Your task to perform on an android device: add a label to a message in the gmail app Image 0: 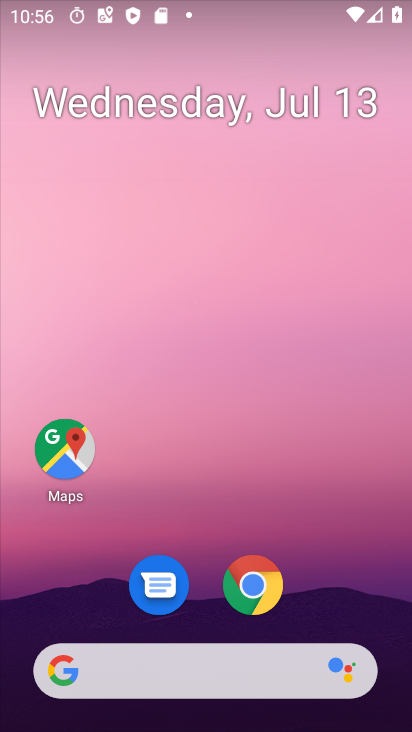
Step 0: drag from (306, 573) to (262, 0)
Your task to perform on an android device: add a label to a message in the gmail app Image 1: 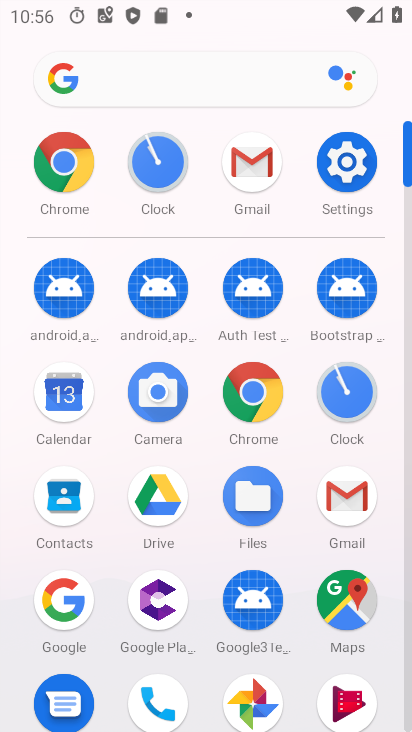
Step 1: click (259, 170)
Your task to perform on an android device: add a label to a message in the gmail app Image 2: 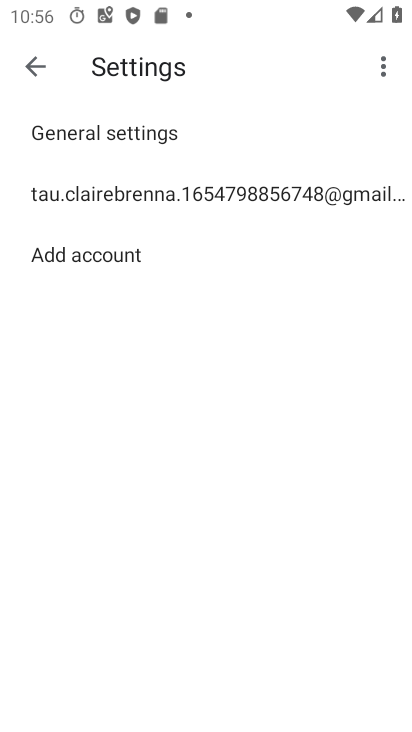
Step 2: click (38, 64)
Your task to perform on an android device: add a label to a message in the gmail app Image 3: 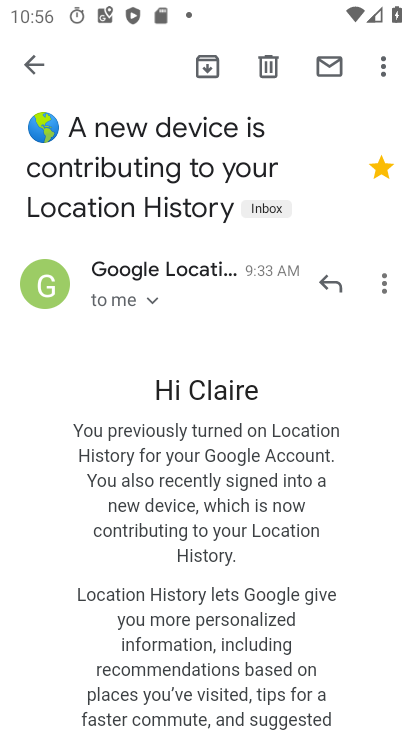
Step 3: click (381, 63)
Your task to perform on an android device: add a label to a message in the gmail app Image 4: 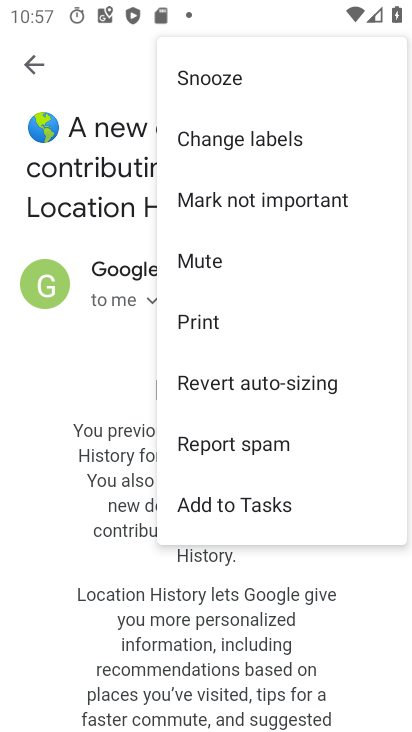
Step 4: click (127, 358)
Your task to perform on an android device: add a label to a message in the gmail app Image 5: 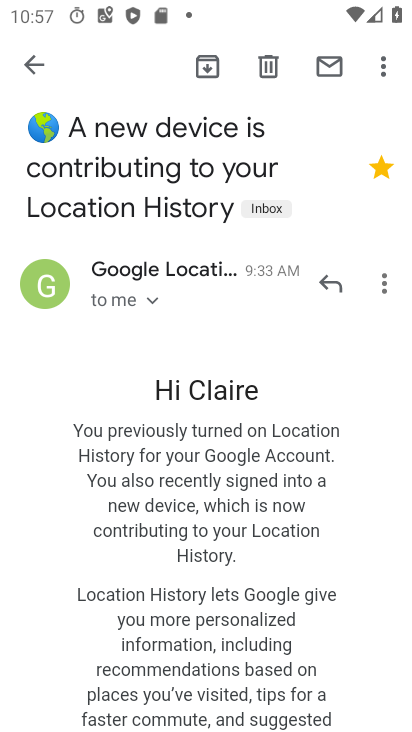
Step 5: click (387, 281)
Your task to perform on an android device: add a label to a message in the gmail app Image 6: 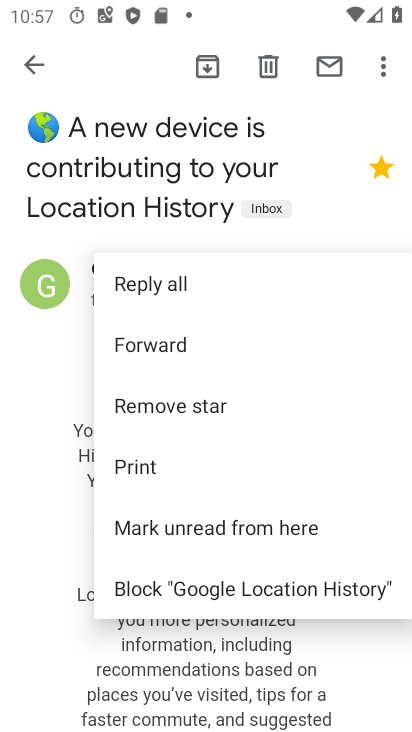
Step 6: click (59, 349)
Your task to perform on an android device: add a label to a message in the gmail app Image 7: 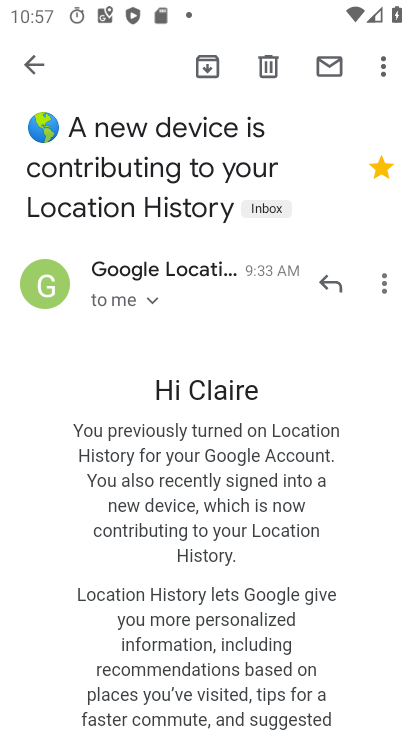
Step 7: click (381, 69)
Your task to perform on an android device: add a label to a message in the gmail app Image 8: 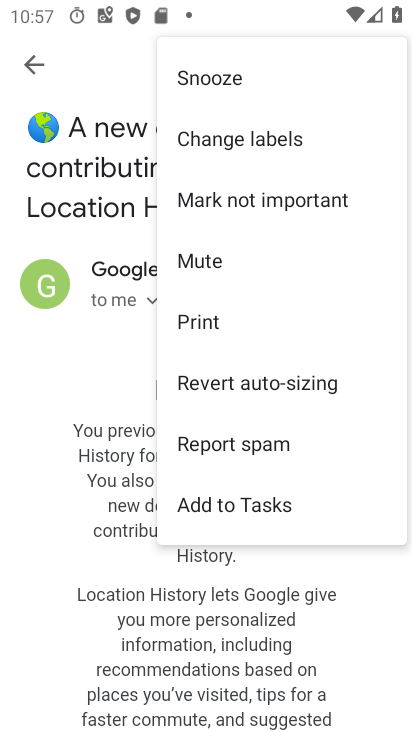
Step 8: click (285, 129)
Your task to perform on an android device: add a label to a message in the gmail app Image 9: 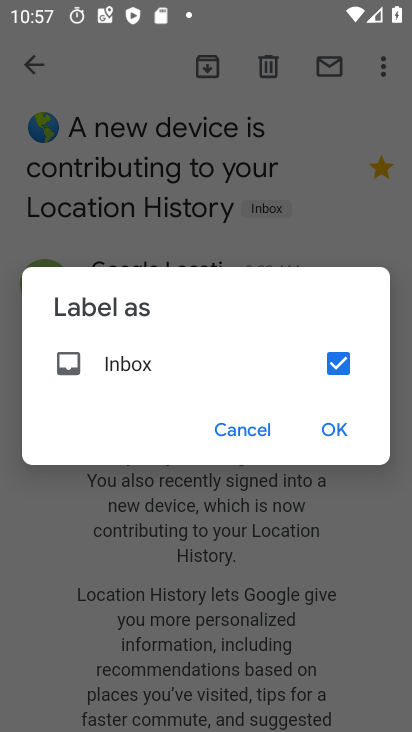
Step 9: click (255, 427)
Your task to perform on an android device: add a label to a message in the gmail app Image 10: 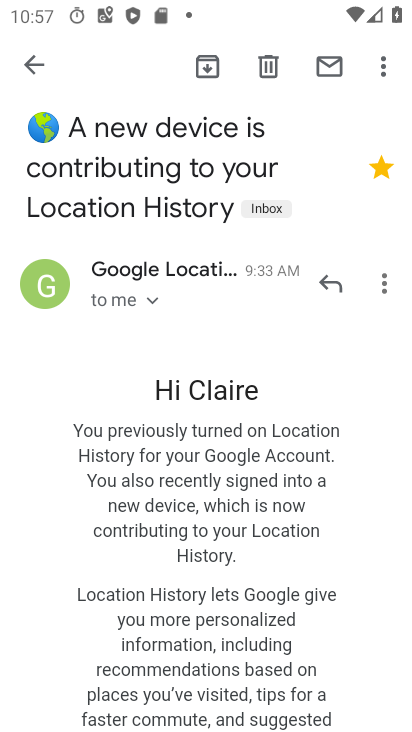
Step 10: click (40, 60)
Your task to perform on an android device: add a label to a message in the gmail app Image 11: 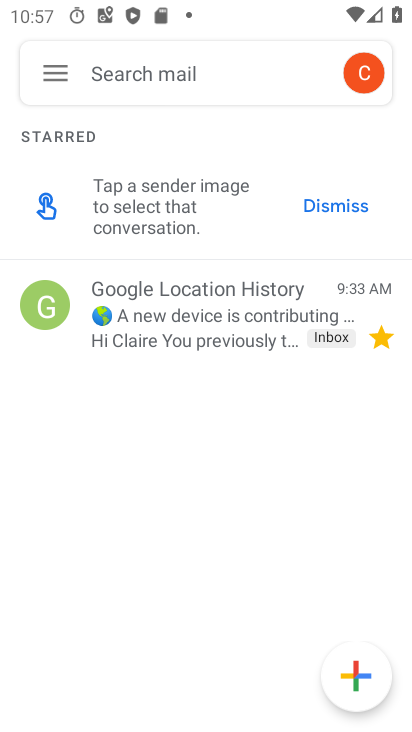
Step 11: click (178, 309)
Your task to perform on an android device: add a label to a message in the gmail app Image 12: 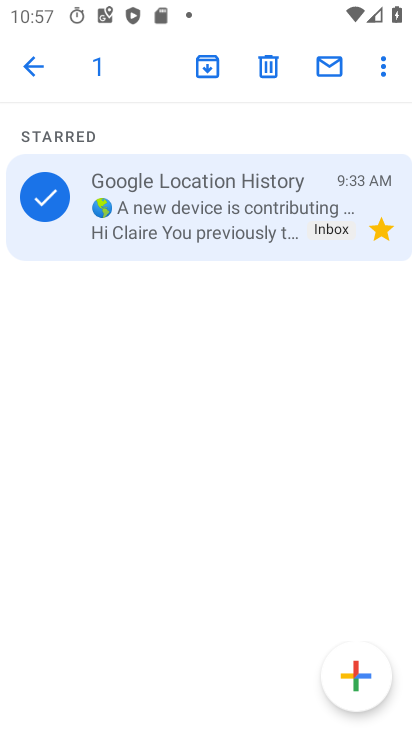
Step 12: click (381, 71)
Your task to perform on an android device: add a label to a message in the gmail app Image 13: 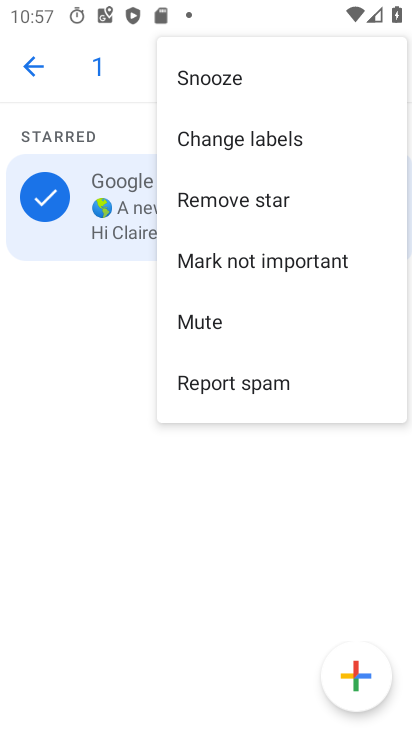
Step 13: click (216, 479)
Your task to perform on an android device: add a label to a message in the gmail app Image 14: 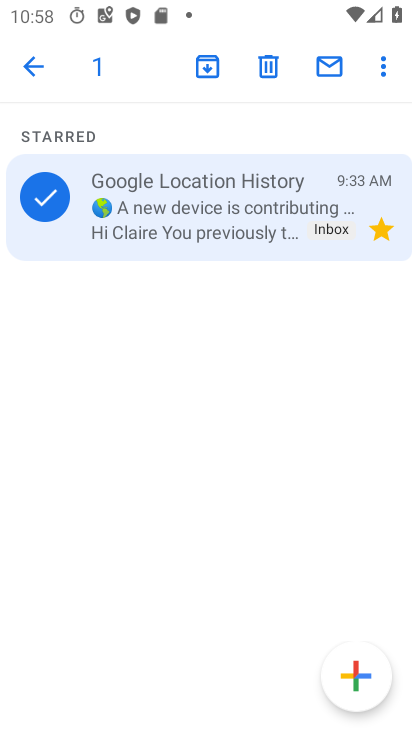
Step 14: click (39, 66)
Your task to perform on an android device: add a label to a message in the gmail app Image 15: 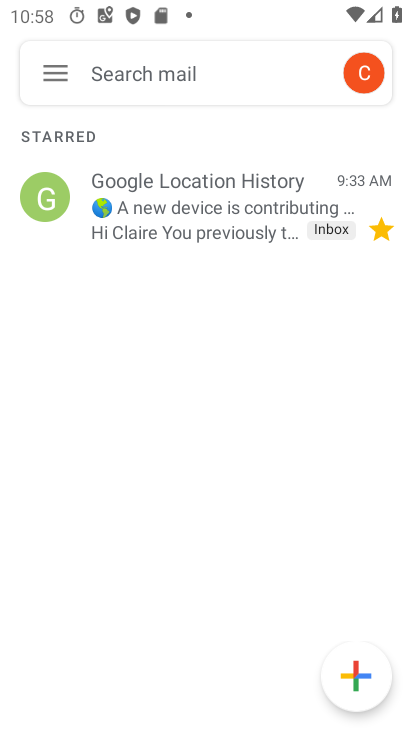
Step 15: task complete